Your task to perform on an android device: Go to settings Image 0: 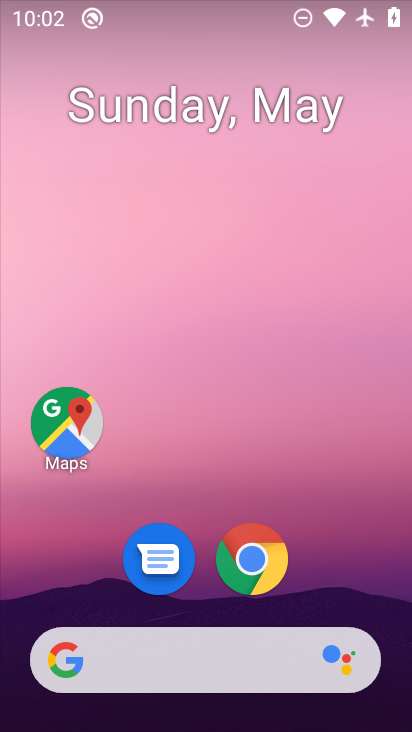
Step 0: press home button
Your task to perform on an android device: Go to settings Image 1: 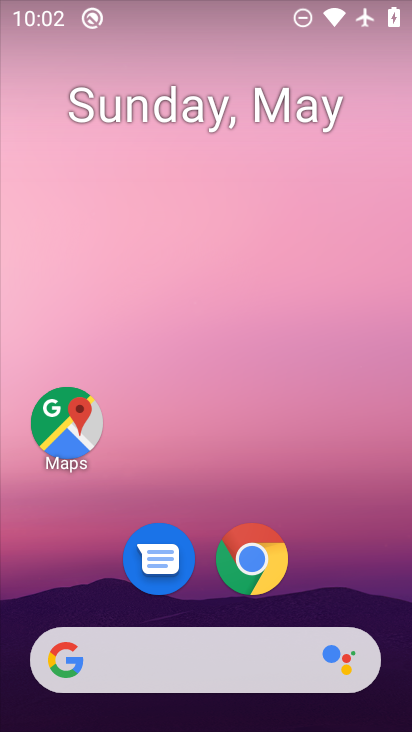
Step 1: drag from (299, 601) to (240, 33)
Your task to perform on an android device: Go to settings Image 2: 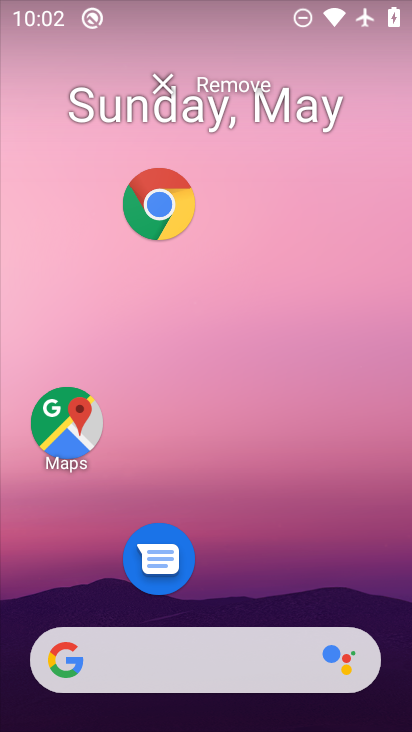
Step 2: click (362, 548)
Your task to perform on an android device: Go to settings Image 3: 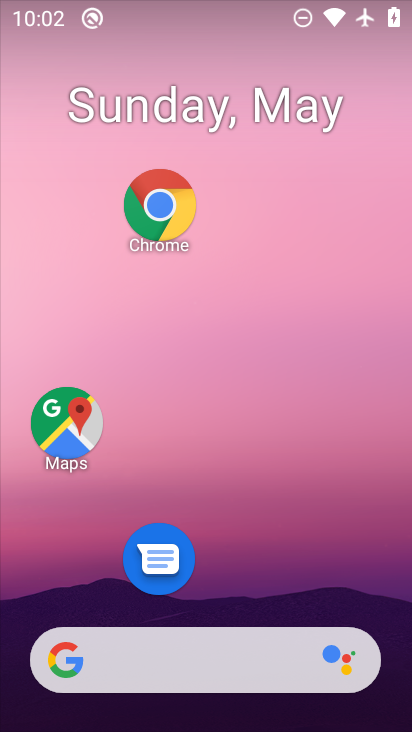
Step 3: drag from (317, 604) to (298, 17)
Your task to perform on an android device: Go to settings Image 4: 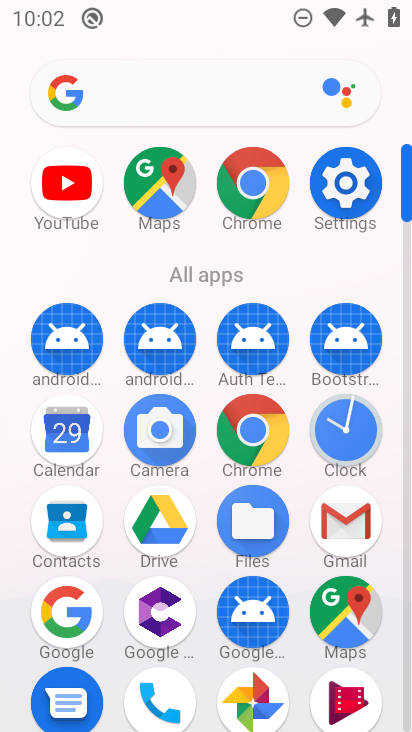
Step 4: click (347, 186)
Your task to perform on an android device: Go to settings Image 5: 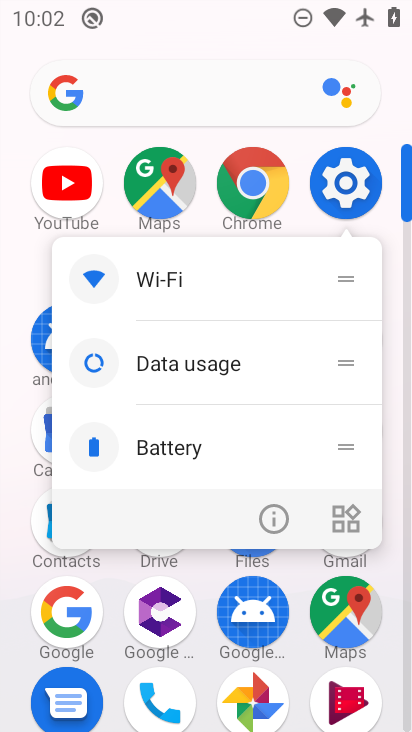
Step 5: click (347, 185)
Your task to perform on an android device: Go to settings Image 6: 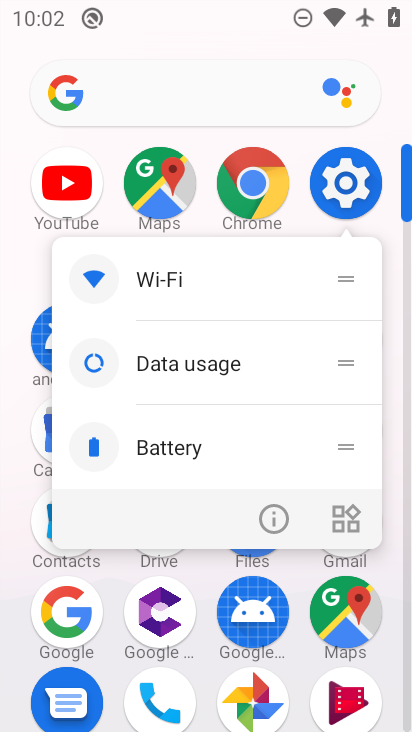
Step 6: click (347, 185)
Your task to perform on an android device: Go to settings Image 7: 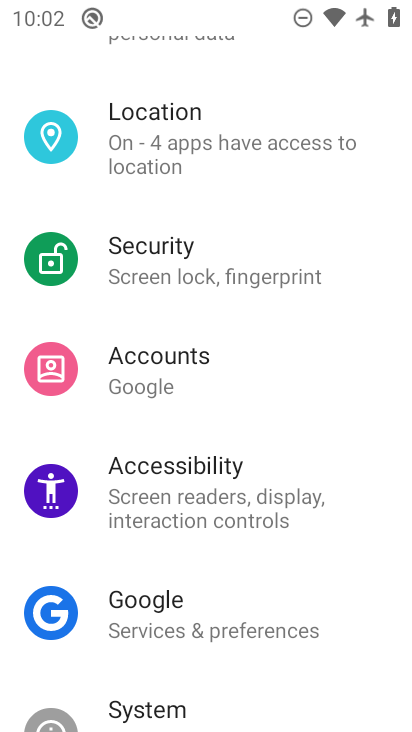
Step 7: task complete